Your task to perform on an android device: turn off translation in the chrome app Image 0: 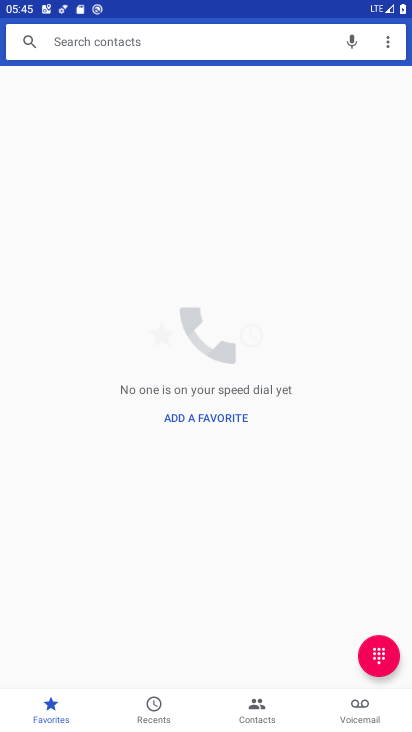
Step 0: press home button
Your task to perform on an android device: turn off translation in the chrome app Image 1: 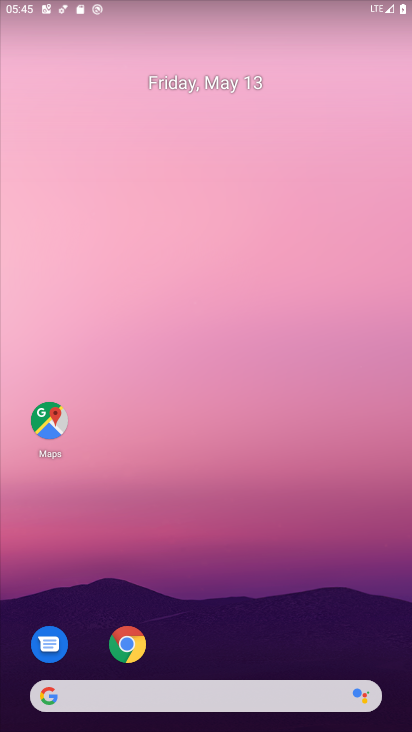
Step 1: drag from (228, 611) to (302, 4)
Your task to perform on an android device: turn off translation in the chrome app Image 2: 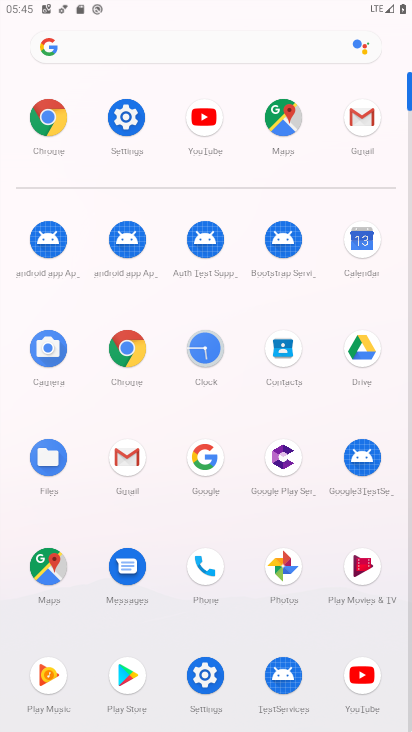
Step 2: click (135, 350)
Your task to perform on an android device: turn off translation in the chrome app Image 3: 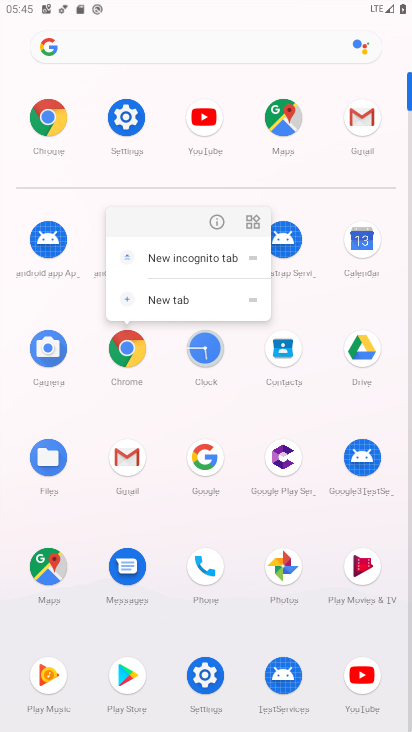
Step 3: click (137, 352)
Your task to perform on an android device: turn off translation in the chrome app Image 4: 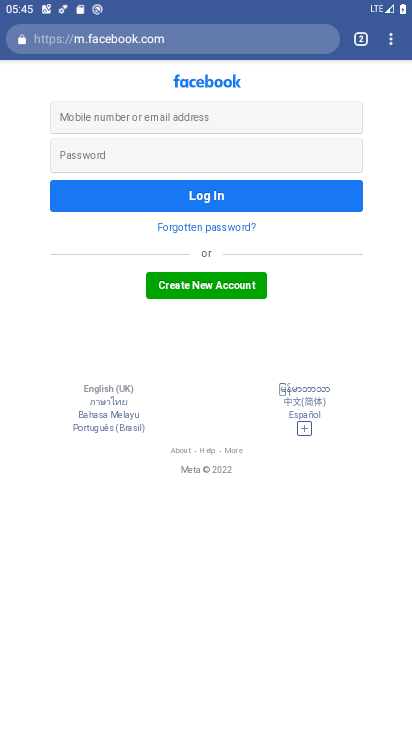
Step 4: click (387, 41)
Your task to perform on an android device: turn off translation in the chrome app Image 5: 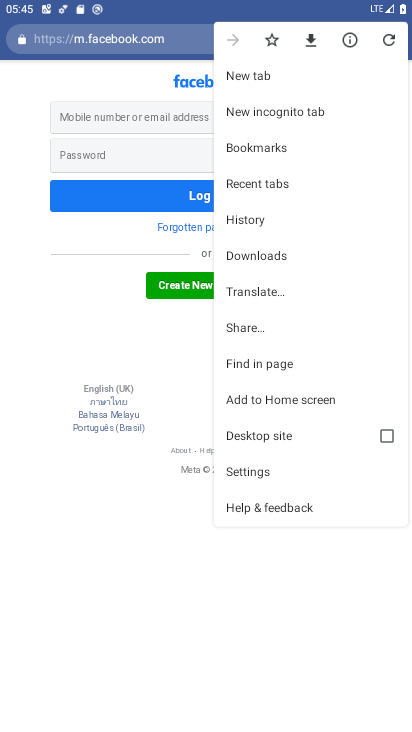
Step 5: click (247, 472)
Your task to perform on an android device: turn off translation in the chrome app Image 6: 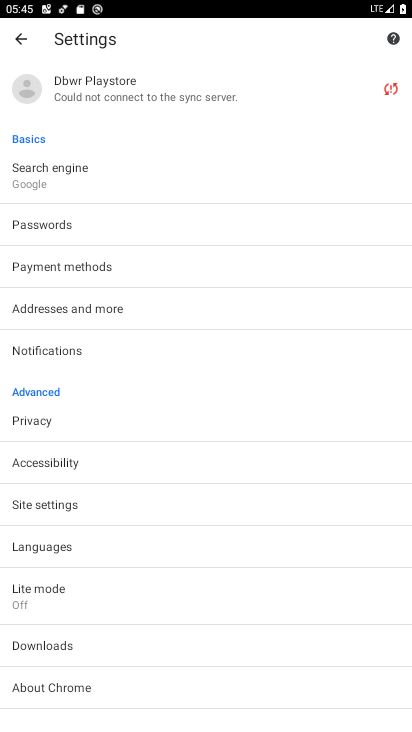
Step 6: click (68, 543)
Your task to perform on an android device: turn off translation in the chrome app Image 7: 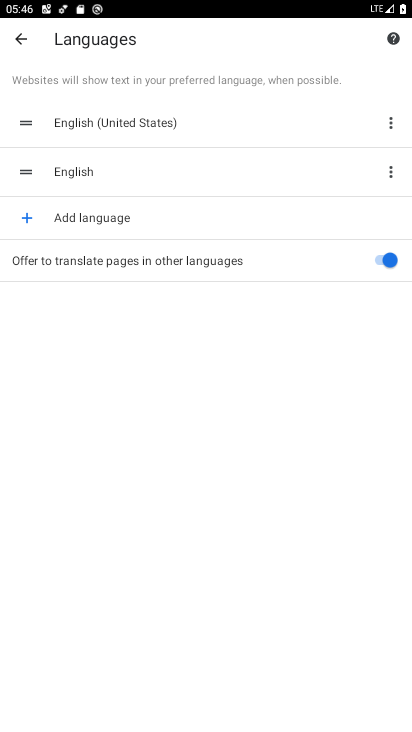
Step 7: click (362, 257)
Your task to perform on an android device: turn off translation in the chrome app Image 8: 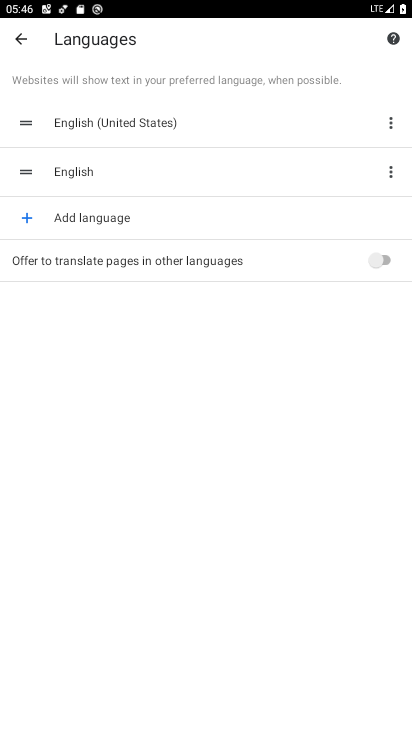
Step 8: task complete